Your task to perform on an android device: toggle javascript in the chrome app Image 0: 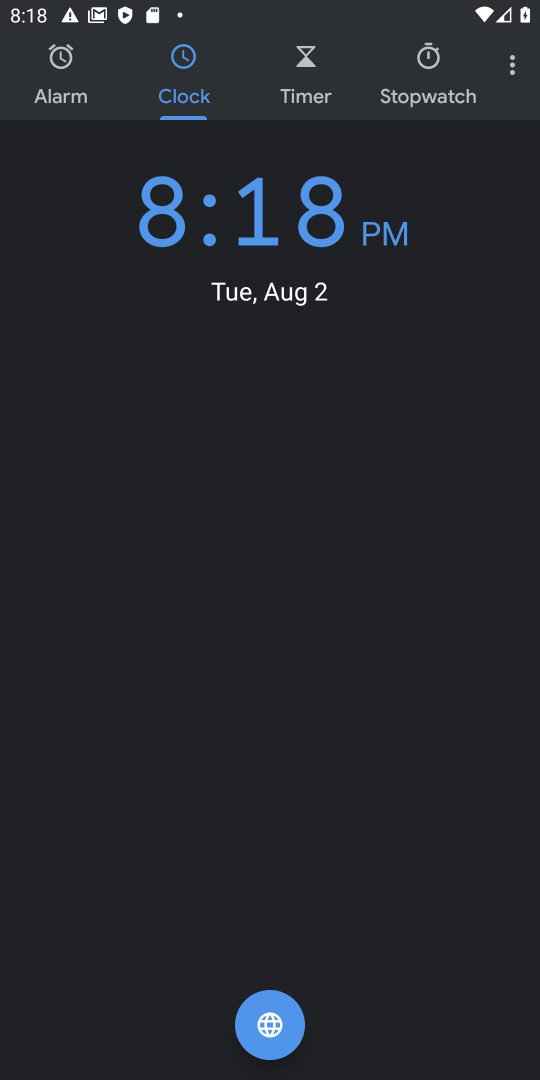
Step 0: press home button
Your task to perform on an android device: toggle javascript in the chrome app Image 1: 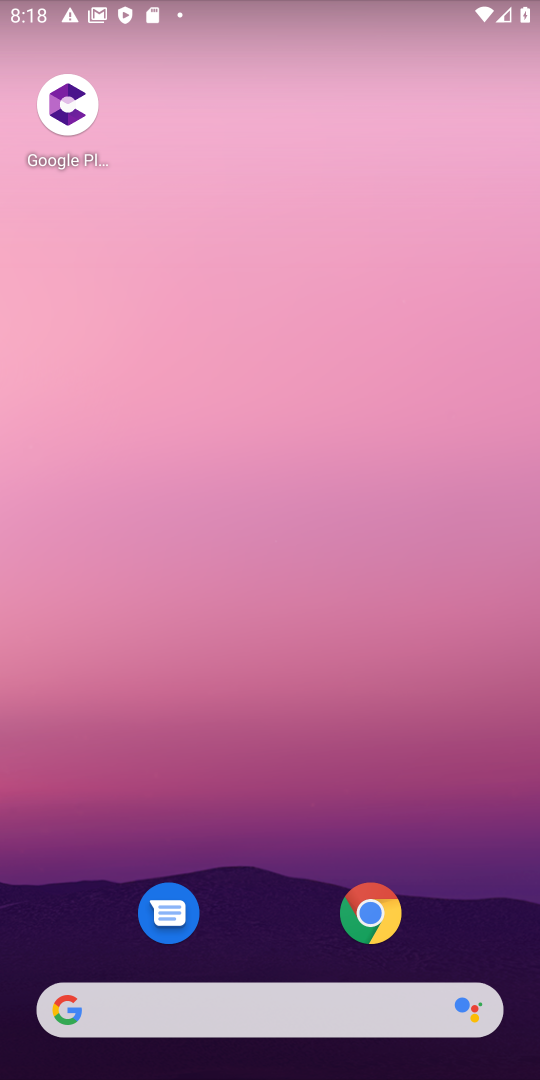
Step 1: click (378, 938)
Your task to perform on an android device: toggle javascript in the chrome app Image 2: 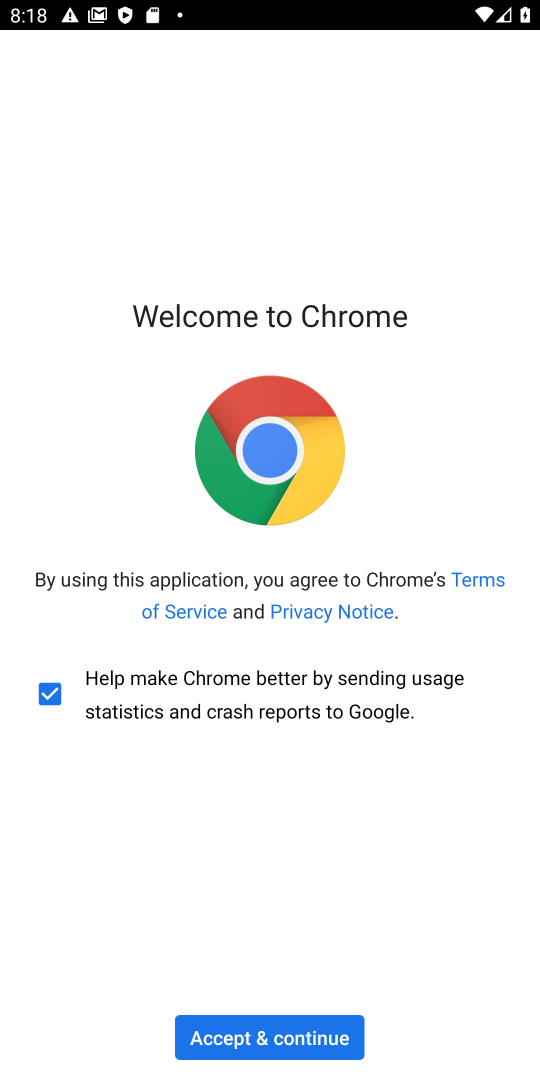
Step 2: click (244, 1038)
Your task to perform on an android device: toggle javascript in the chrome app Image 3: 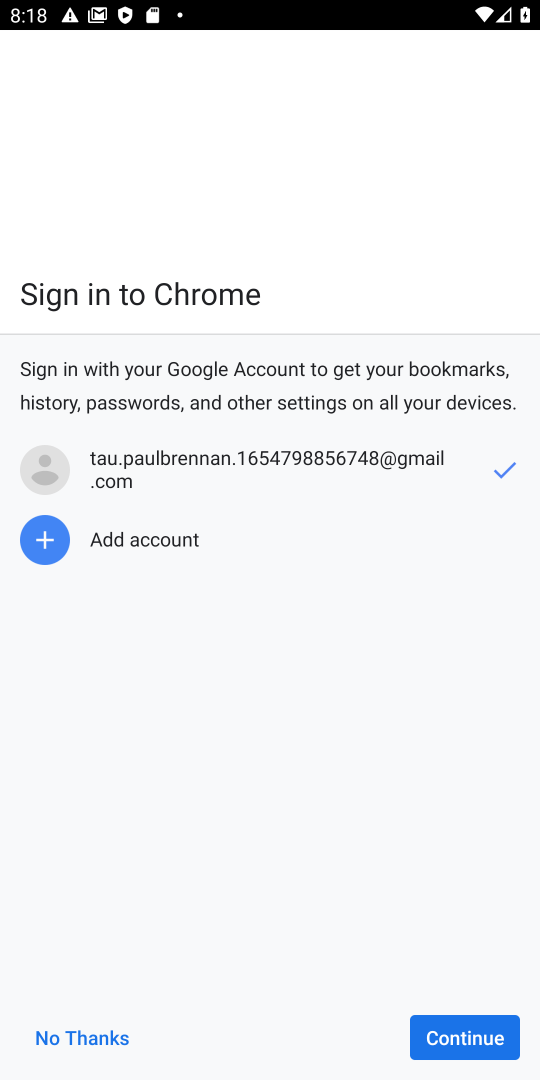
Step 3: click (441, 1044)
Your task to perform on an android device: toggle javascript in the chrome app Image 4: 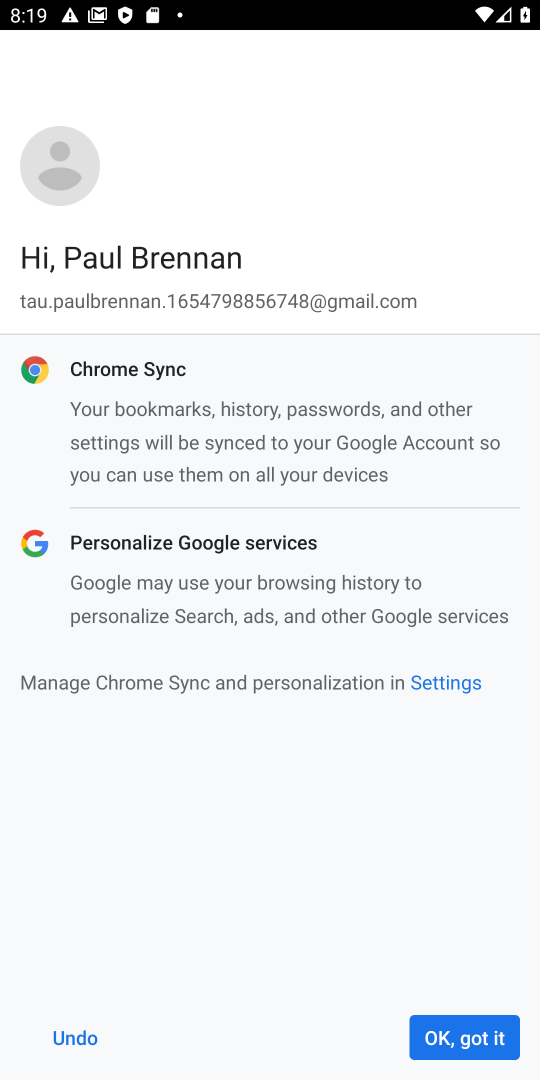
Step 4: click (441, 1044)
Your task to perform on an android device: toggle javascript in the chrome app Image 5: 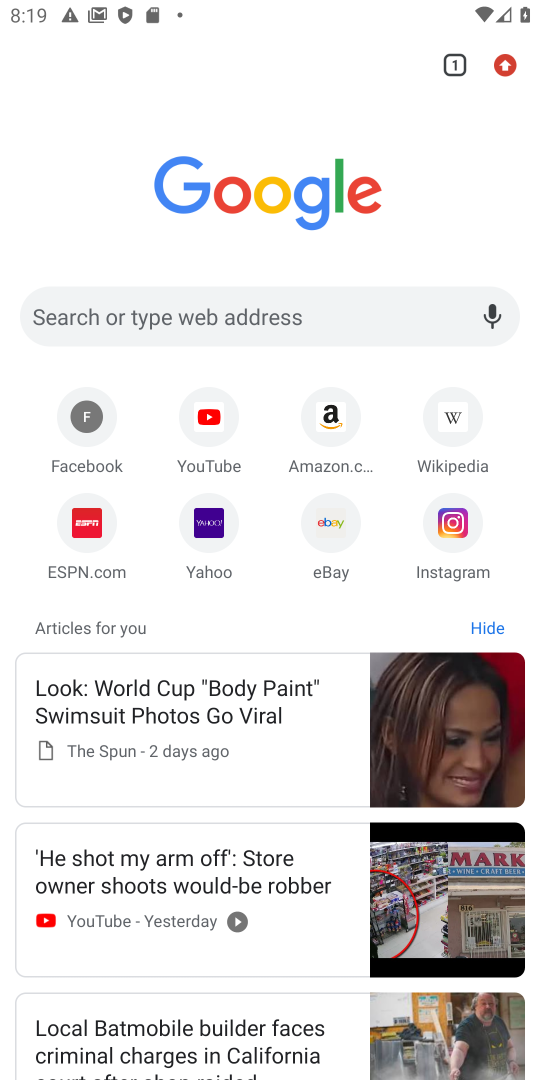
Step 5: click (508, 64)
Your task to perform on an android device: toggle javascript in the chrome app Image 6: 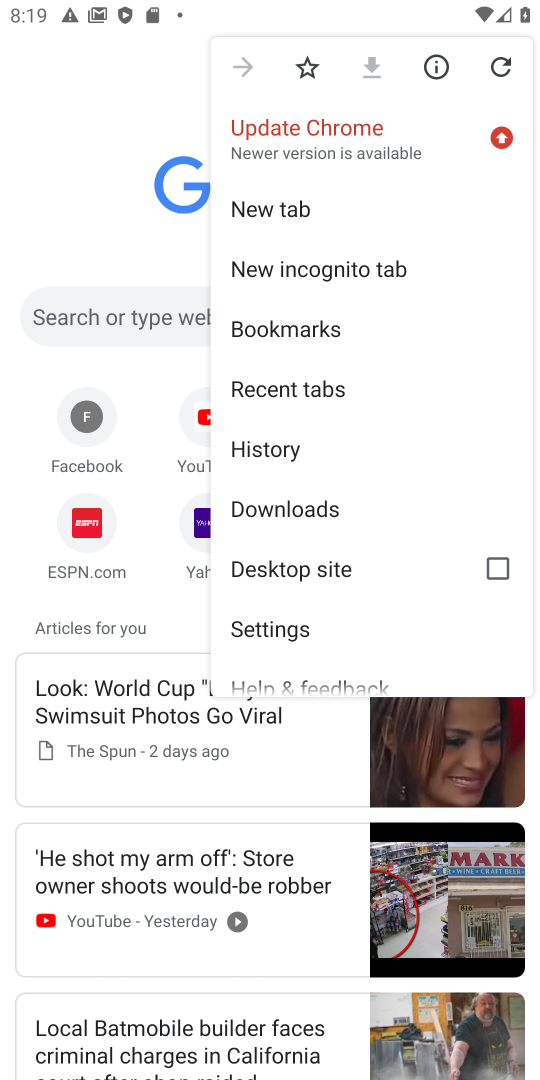
Step 6: click (317, 657)
Your task to perform on an android device: toggle javascript in the chrome app Image 7: 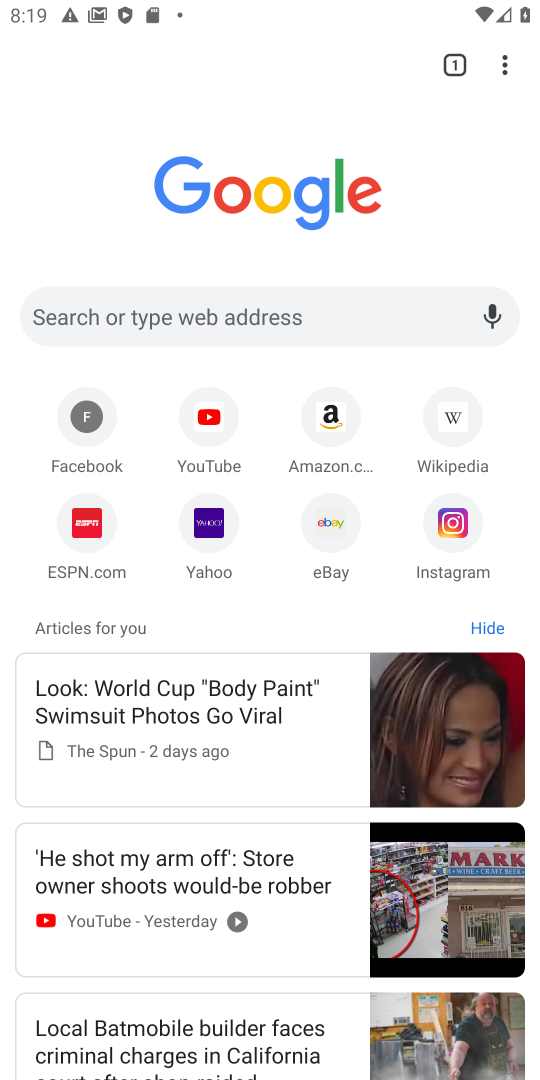
Step 7: click (290, 636)
Your task to perform on an android device: toggle javascript in the chrome app Image 8: 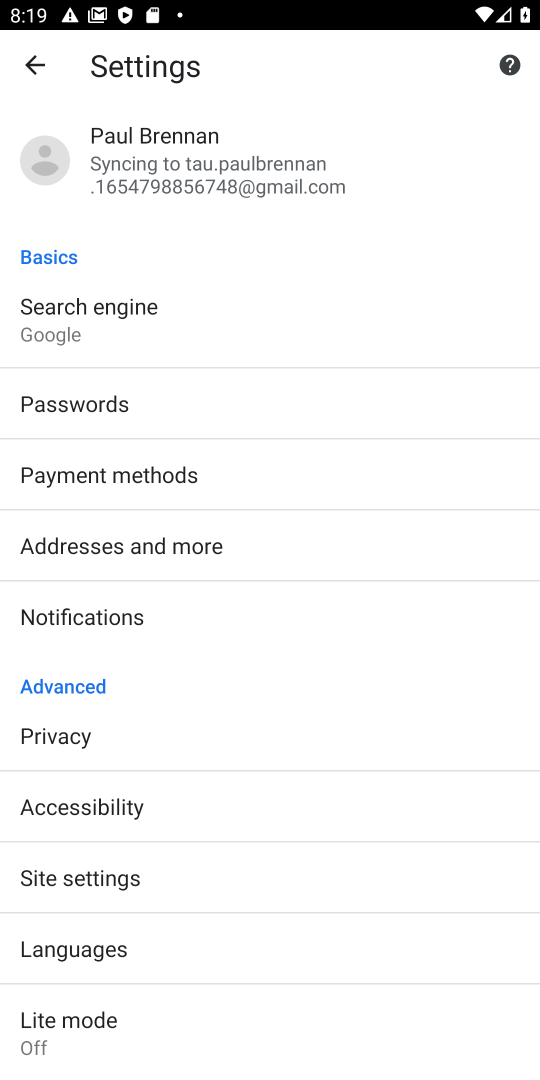
Step 8: task complete